Your task to perform on an android device: install app "Mercado Libre" Image 0: 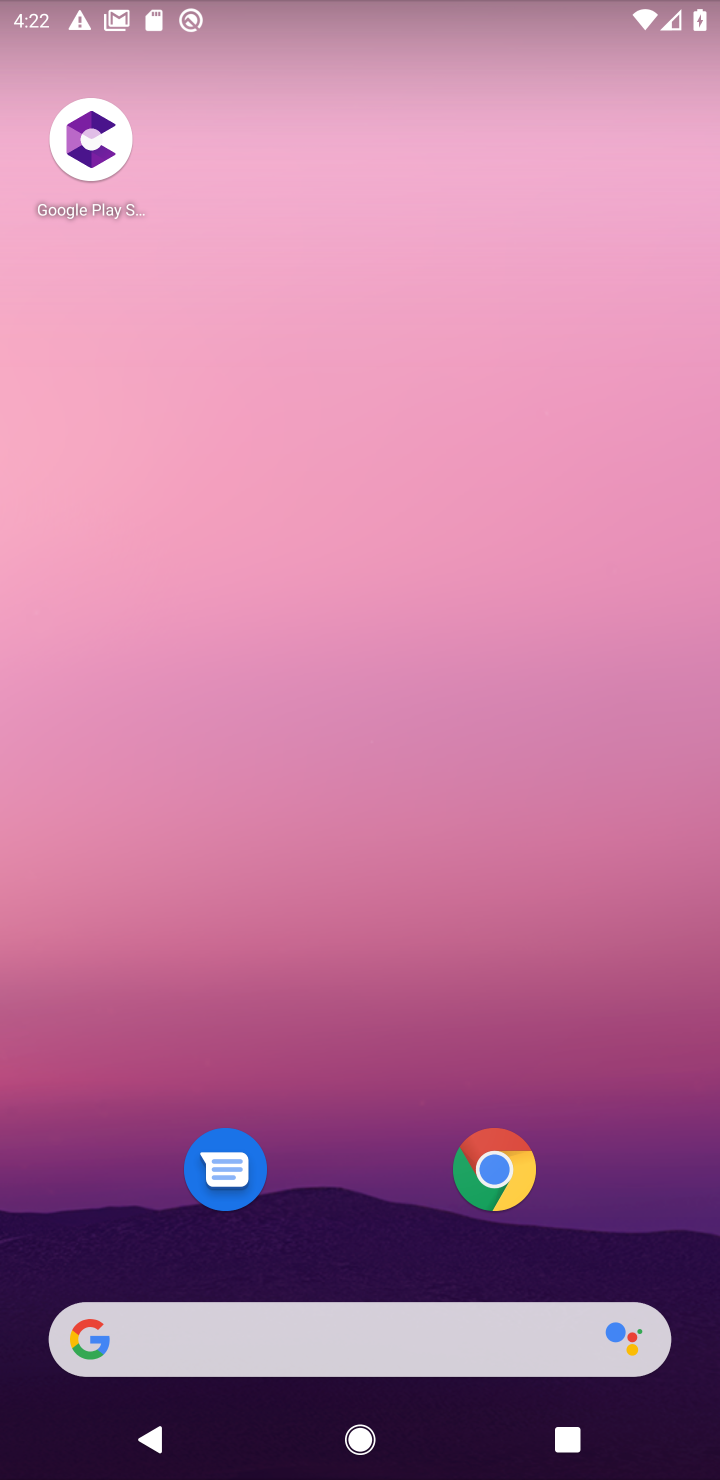
Step 0: drag from (611, 1183) to (447, 4)
Your task to perform on an android device: install app "Mercado Libre" Image 1: 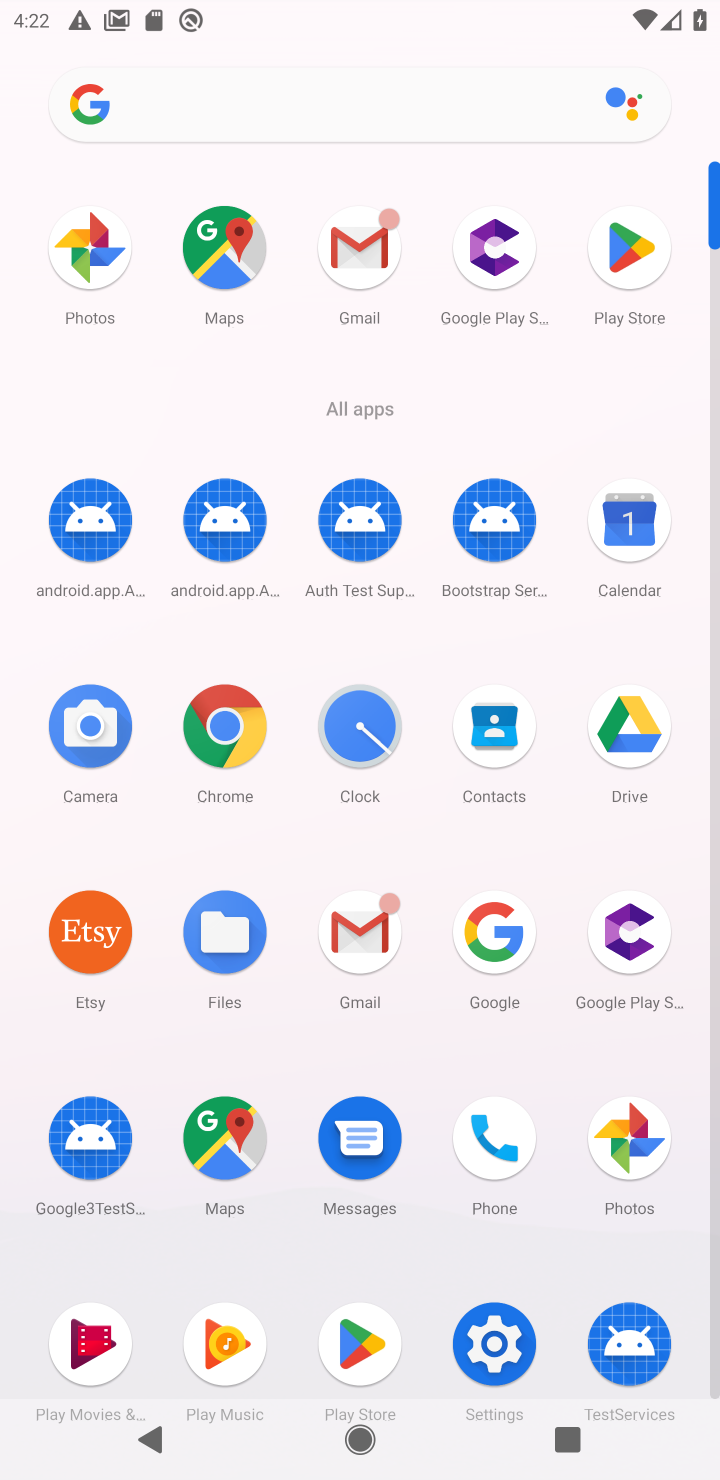
Step 1: click (376, 1342)
Your task to perform on an android device: install app "Mercado Libre" Image 2: 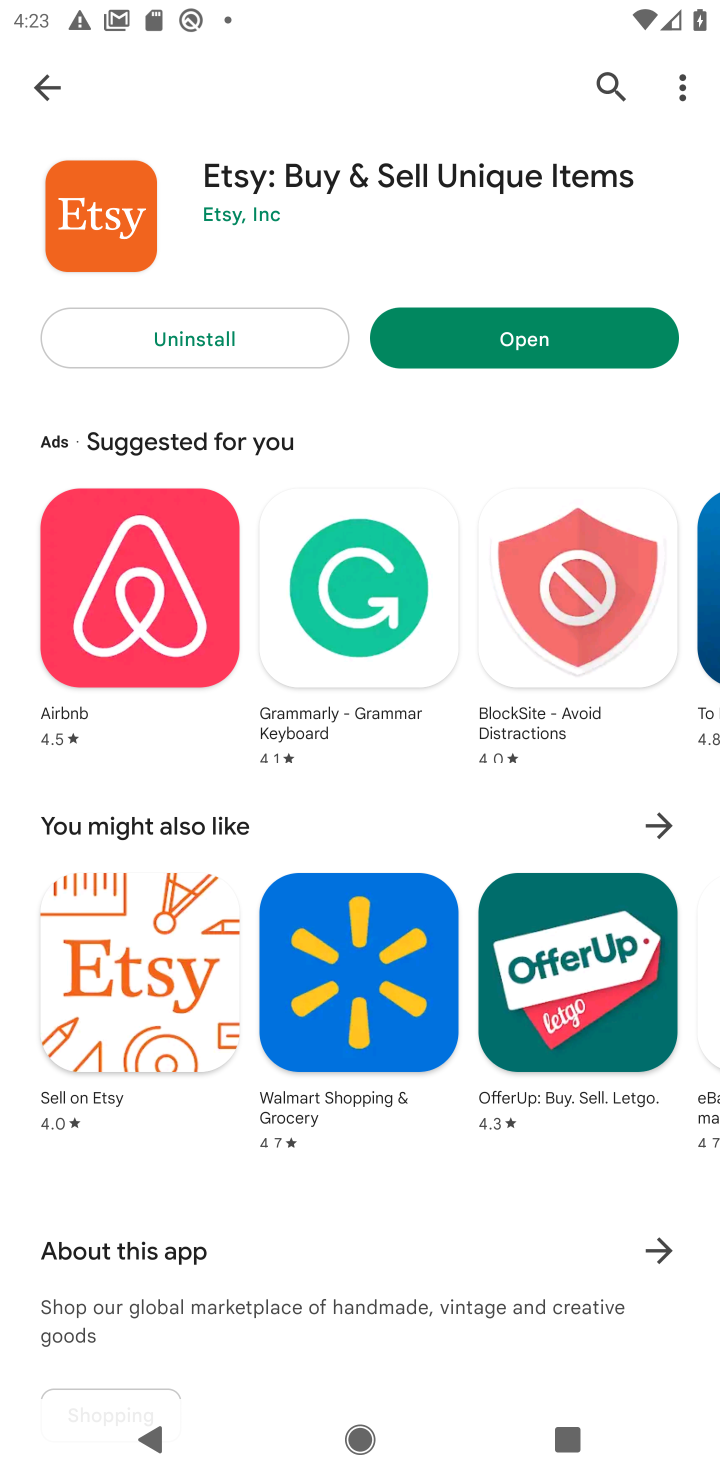
Step 2: click (593, 96)
Your task to perform on an android device: install app "Mercado Libre" Image 3: 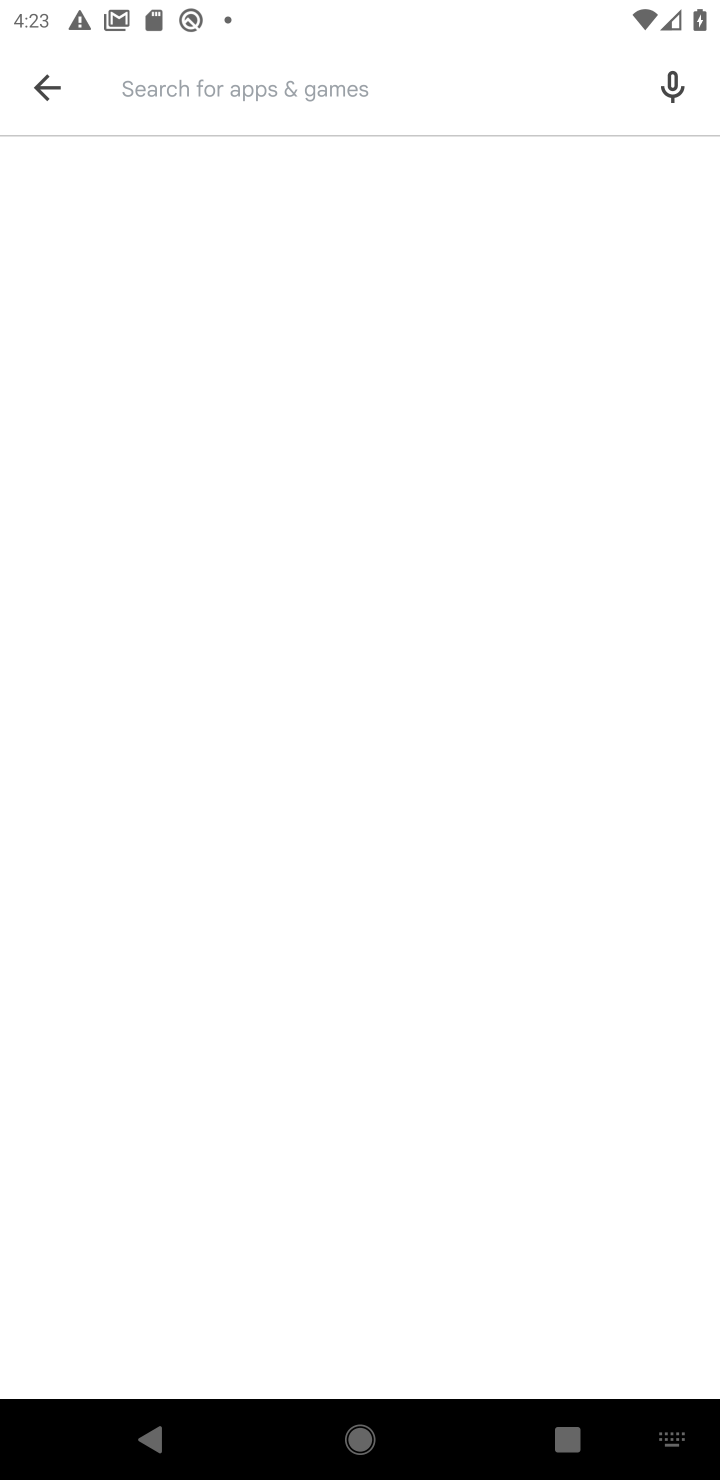
Step 3: click (529, 83)
Your task to perform on an android device: install app "Mercado Libre" Image 4: 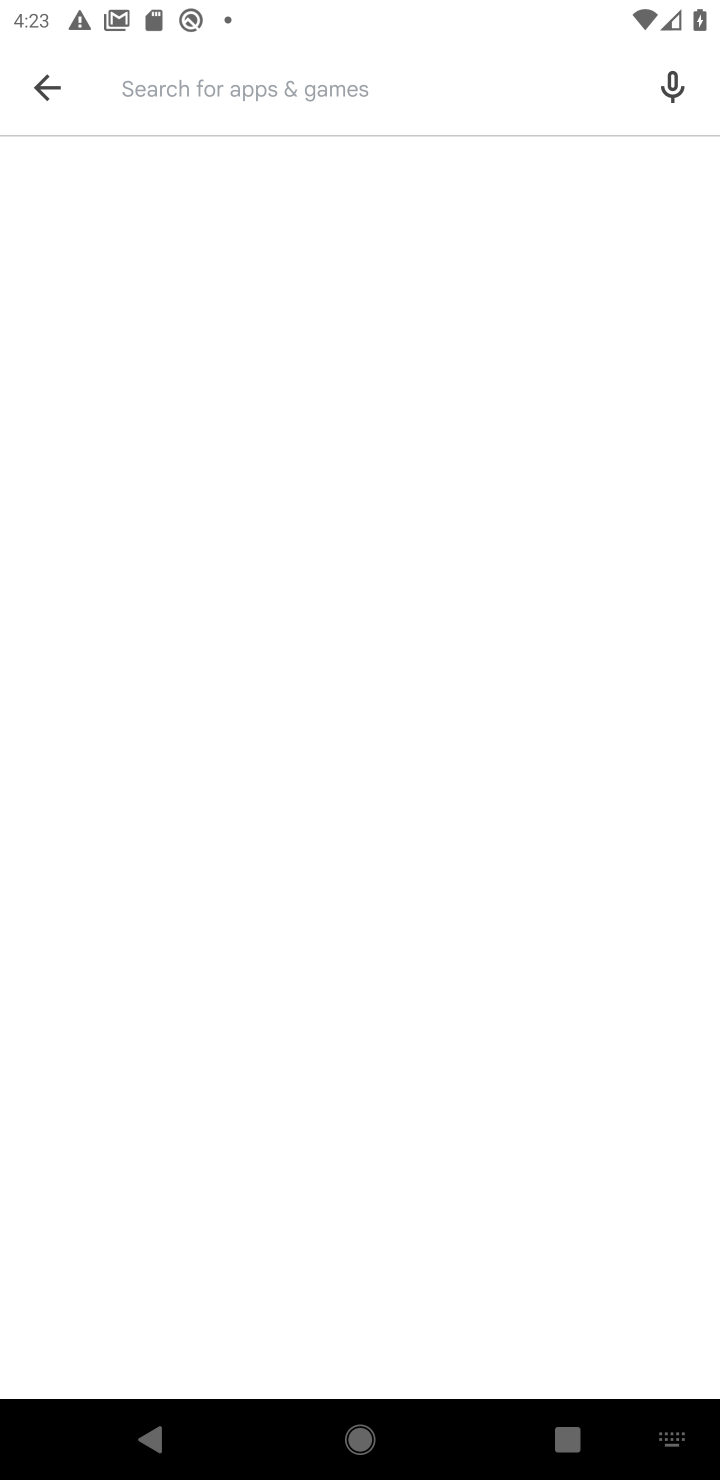
Step 4: type "mercado libre"
Your task to perform on an android device: install app "Mercado Libre" Image 5: 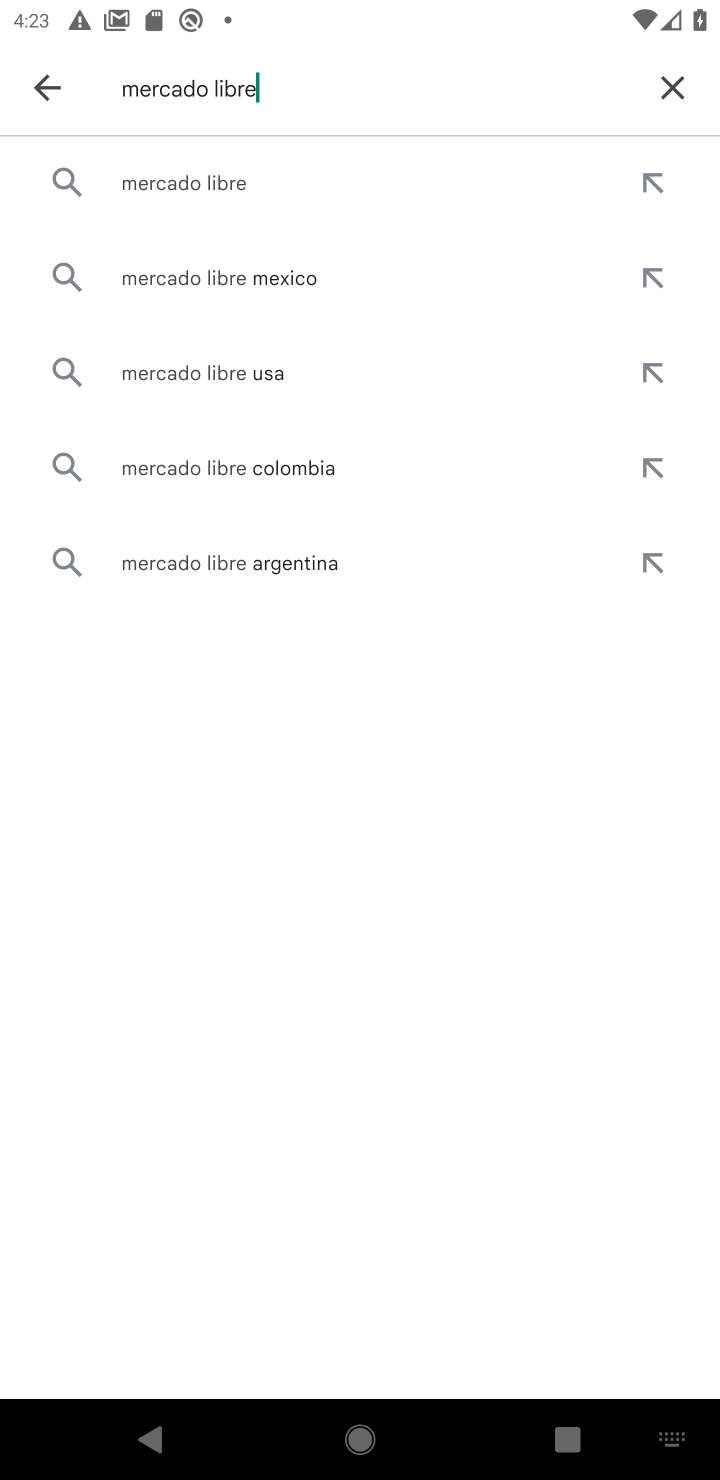
Step 5: click (298, 178)
Your task to perform on an android device: install app "Mercado Libre" Image 6: 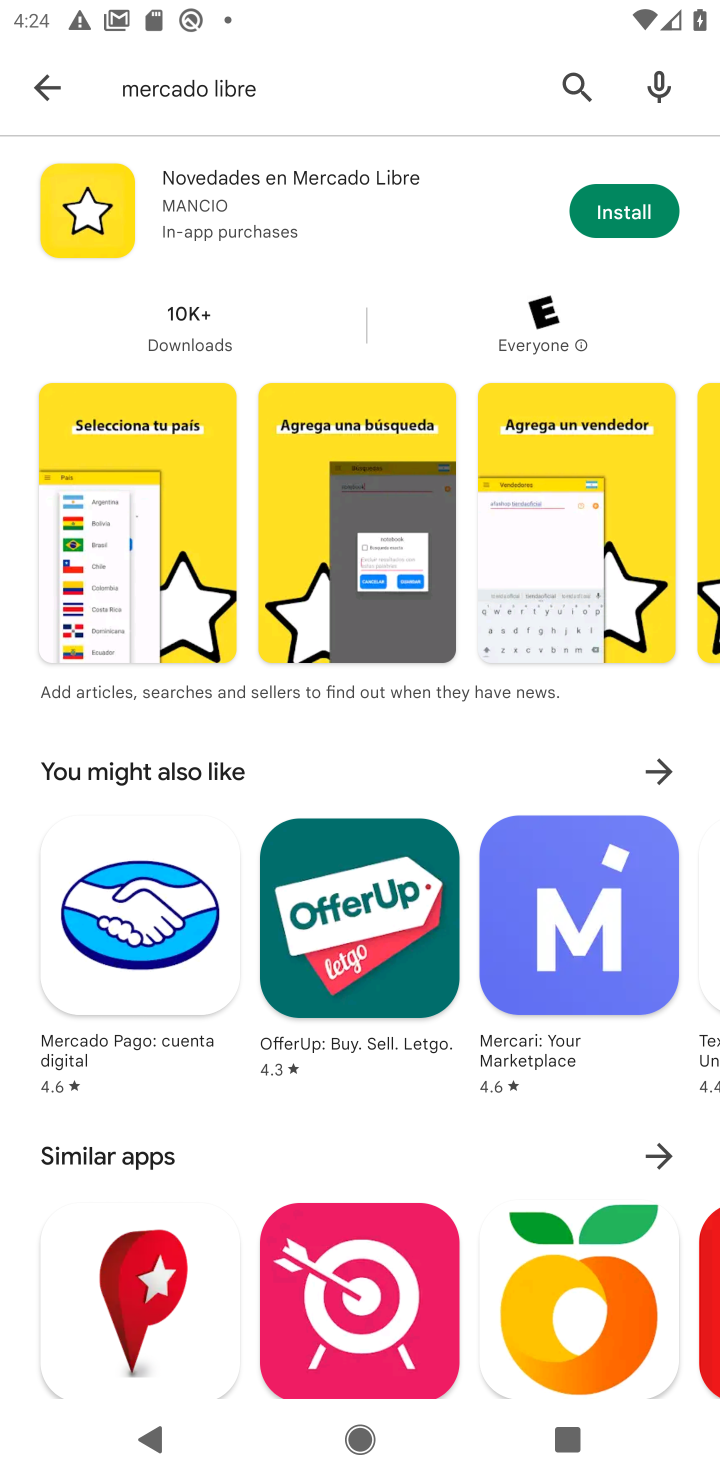
Step 6: click (592, 169)
Your task to perform on an android device: install app "Mercado Libre" Image 7: 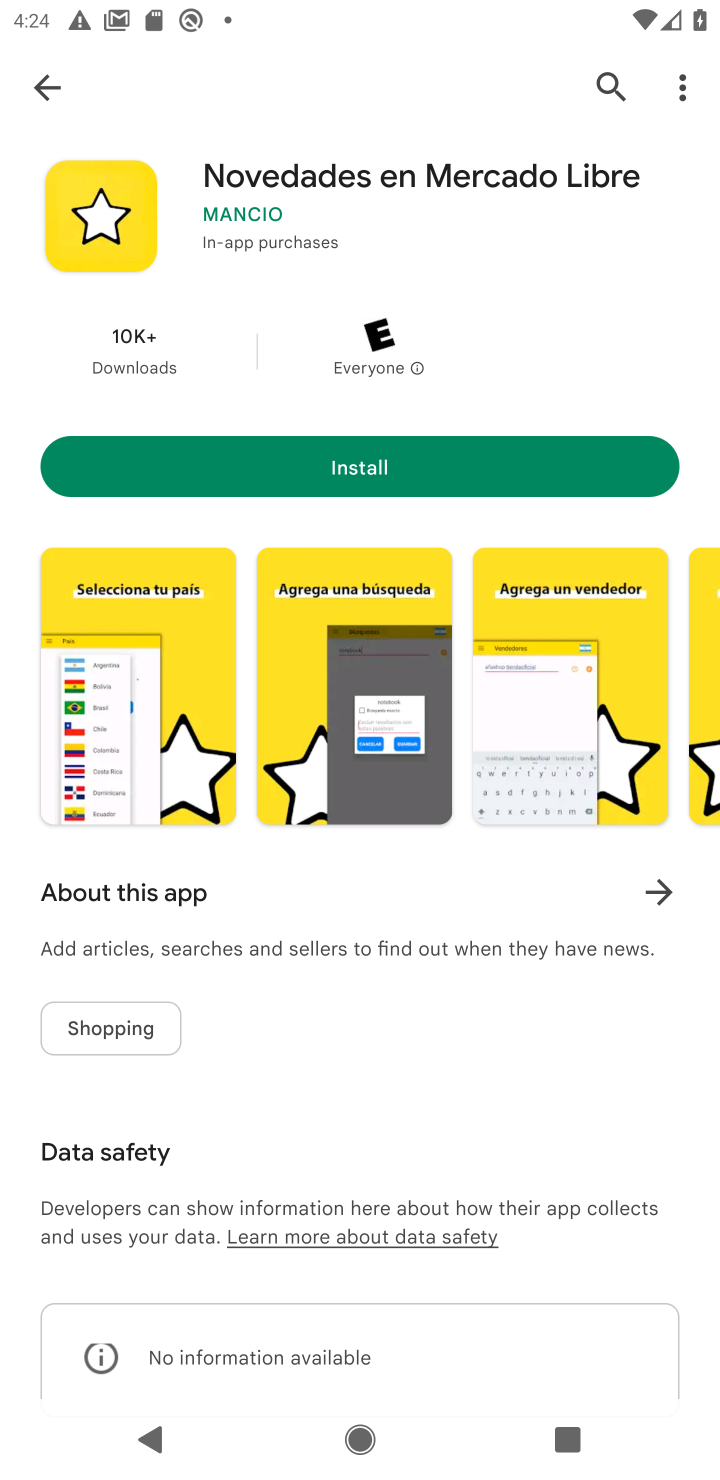
Step 7: click (596, 490)
Your task to perform on an android device: install app "Mercado Libre" Image 8: 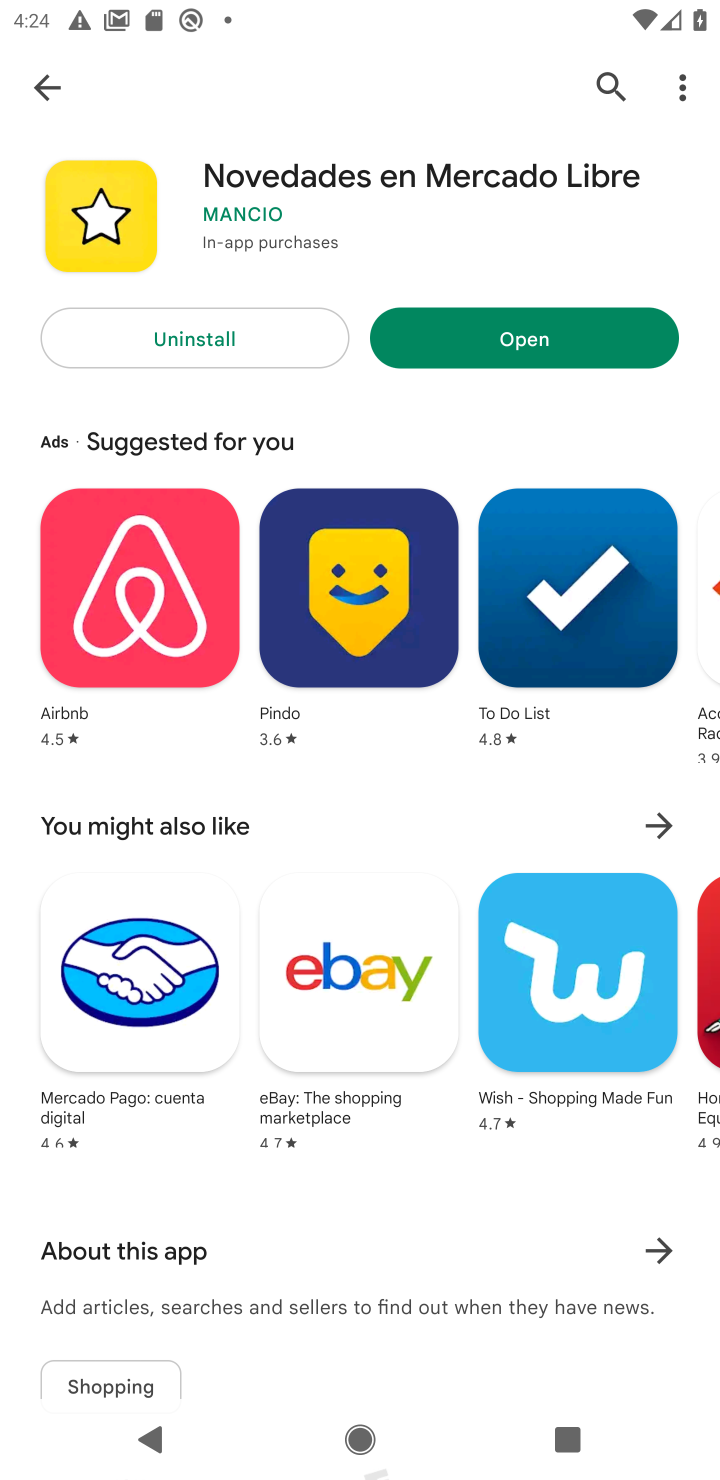
Step 8: task complete